Your task to perform on an android device: turn on the 12-hour format for clock Image 0: 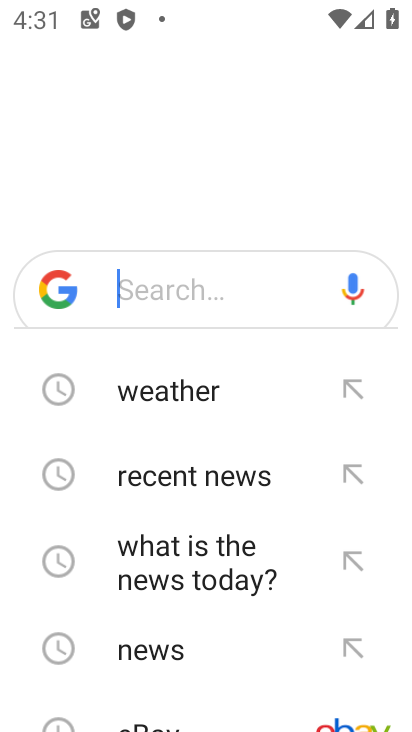
Step 0: press home button
Your task to perform on an android device: turn on the 12-hour format for clock Image 1: 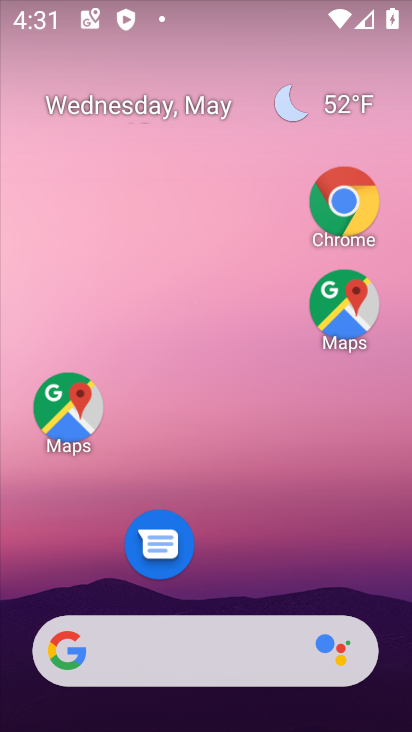
Step 1: drag from (295, 242) to (297, 196)
Your task to perform on an android device: turn on the 12-hour format for clock Image 2: 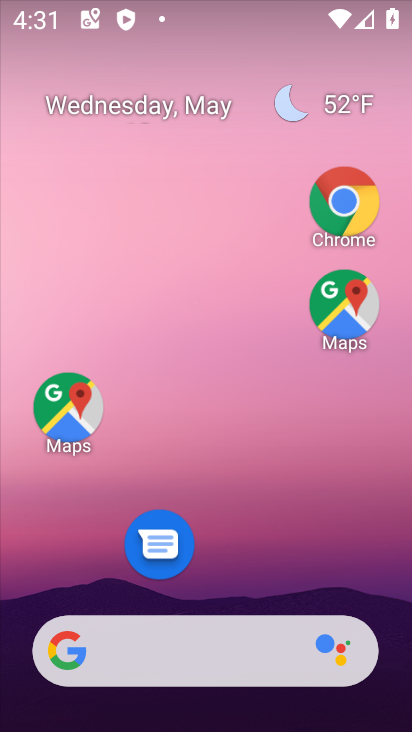
Step 2: drag from (253, 558) to (276, 8)
Your task to perform on an android device: turn on the 12-hour format for clock Image 3: 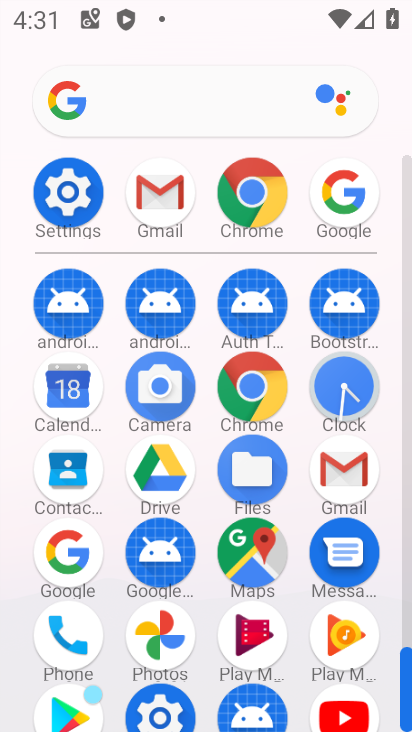
Step 3: click (341, 407)
Your task to perform on an android device: turn on the 12-hour format for clock Image 4: 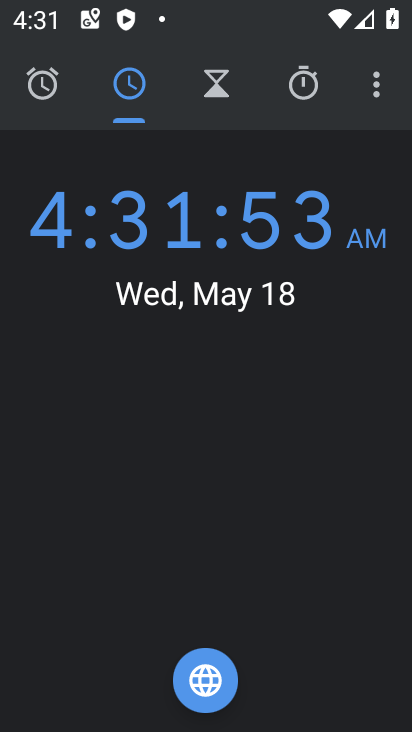
Step 4: click (377, 92)
Your task to perform on an android device: turn on the 12-hour format for clock Image 5: 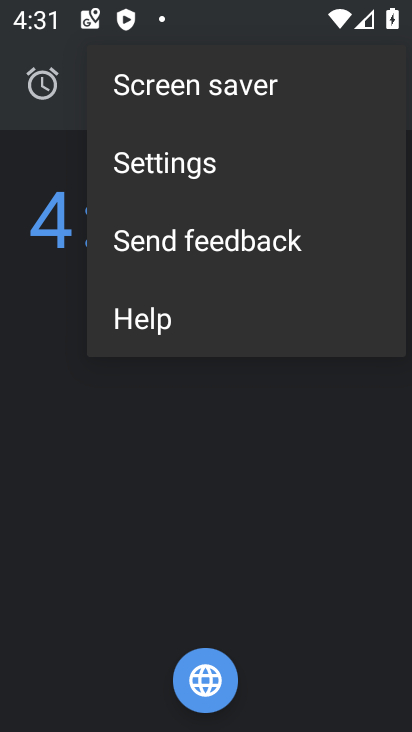
Step 5: click (215, 165)
Your task to perform on an android device: turn on the 12-hour format for clock Image 6: 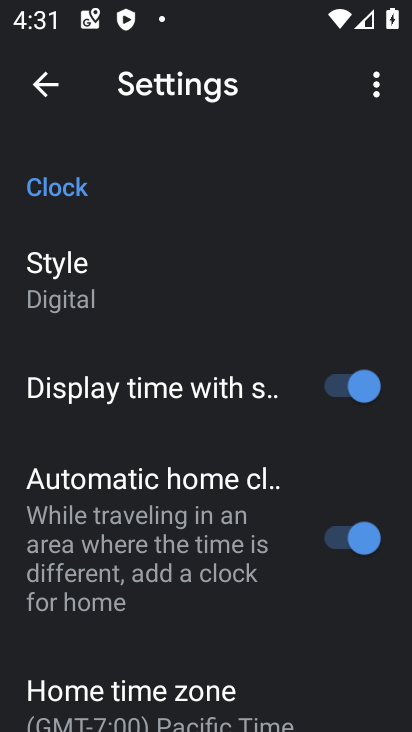
Step 6: drag from (120, 698) to (202, 355)
Your task to perform on an android device: turn on the 12-hour format for clock Image 7: 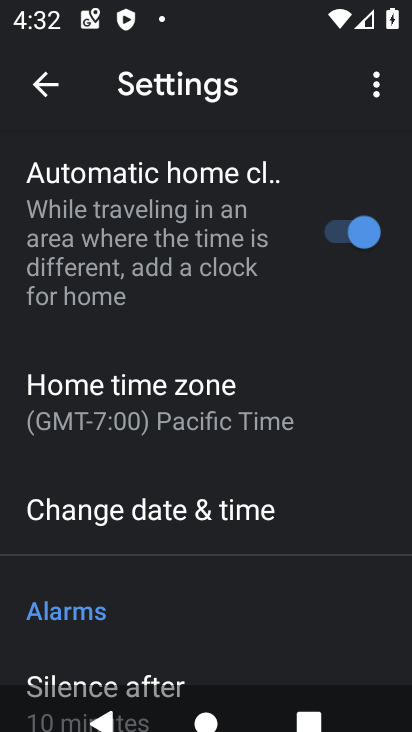
Step 7: click (174, 509)
Your task to perform on an android device: turn on the 12-hour format for clock Image 8: 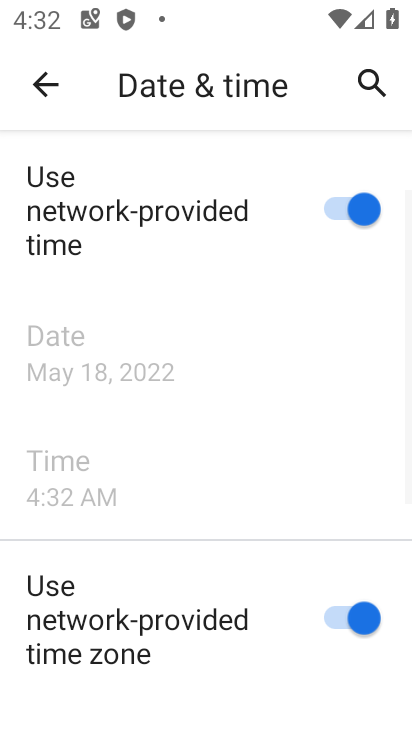
Step 8: task complete